Your task to perform on an android device: Add "panasonic triple a" to the cart on ebay Image 0: 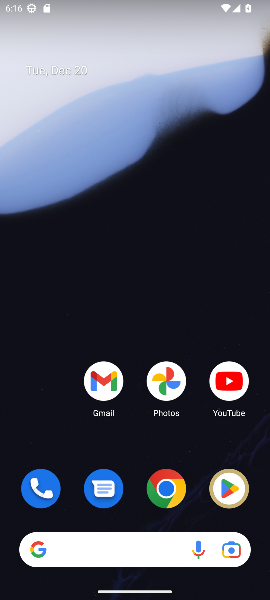
Step 0: press home button
Your task to perform on an android device: Add "panasonic triple a" to the cart on ebay Image 1: 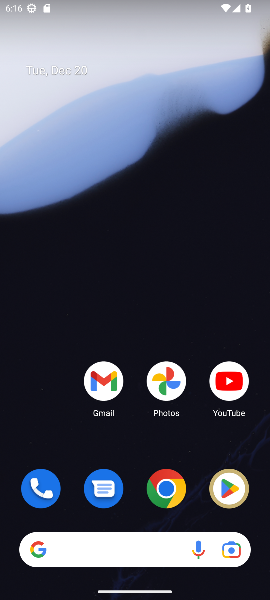
Step 1: click (60, 548)
Your task to perform on an android device: Add "panasonic triple a" to the cart on ebay Image 2: 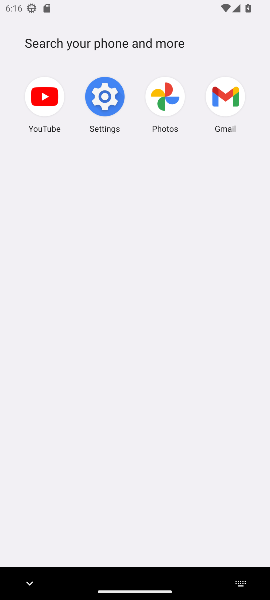
Step 2: press home button
Your task to perform on an android device: Add "panasonic triple a" to the cart on ebay Image 3: 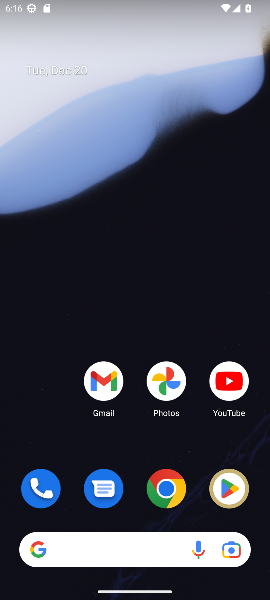
Step 3: drag from (65, 445) to (48, 56)
Your task to perform on an android device: Add "panasonic triple a" to the cart on ebay Image 4: 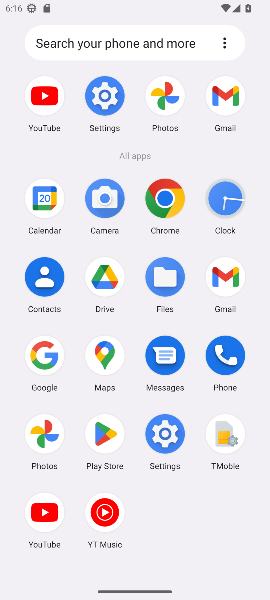
Step 4: click (34, 354)
Your task to perform on an android device: Add "panasonic triple a" to the cart on ebay Image 5: 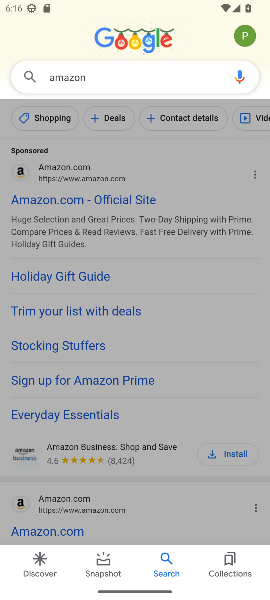
Step 5: click (149, 72)
Your task to perform on an android device: Add "panasonic triple a" to the cart on ebay Image 6: 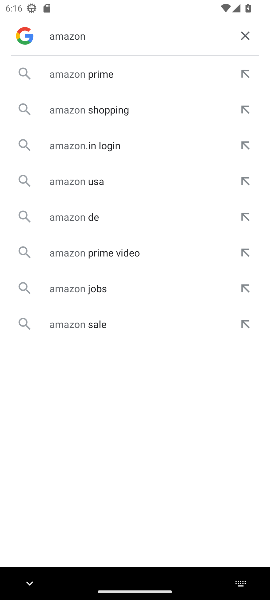
Step 6: click (248, 32)
Your task to perform on an android device: Add "panasonic triple a" to the cart on ebay Image 7: 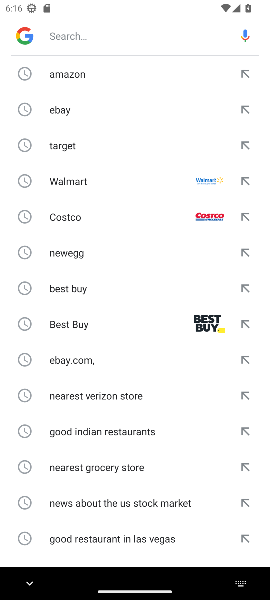
Step 7: type "ebay"
Your task to perform on an android device: Add "panasonic triple a" to the cart on ebay Image 8: 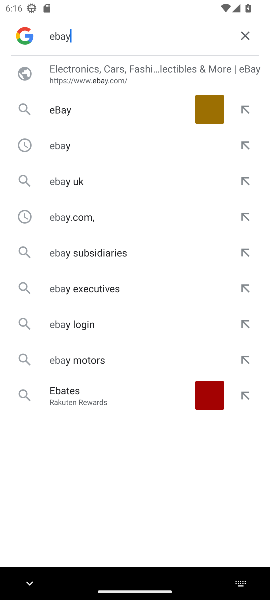
Step 8: press enter
Your task to perform on an android device: Add "panasonic triple a" to the cart on ebay Image 9: 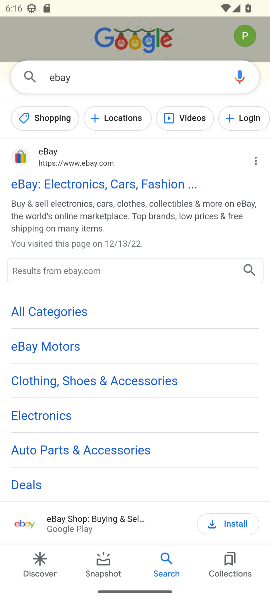
Step 9: click (131, 187)
Your task to perform on an android device: Add "panasonic triple a" to the cart on ebay Image 10: 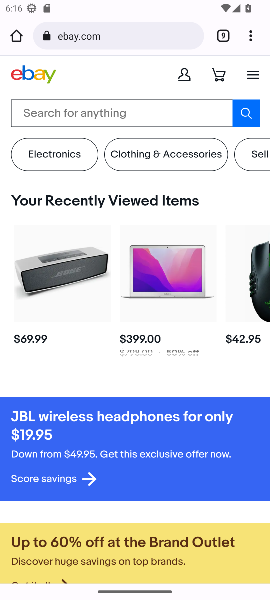
Step 10: click (118, 108)
Your task to perform on an android device: Add "panasonic triple a" to the cart on ebay Image 11: 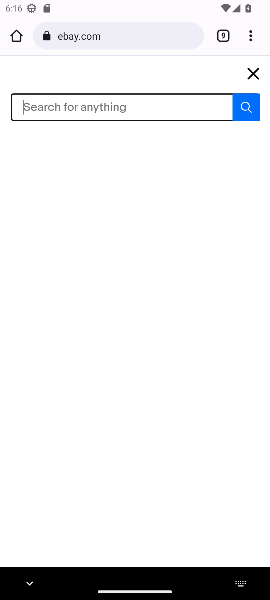
Step 11: type "panasonic triple a"
Your task to perform on an android device: Add "panasonic triple a" to the cart on ebay Image 12: 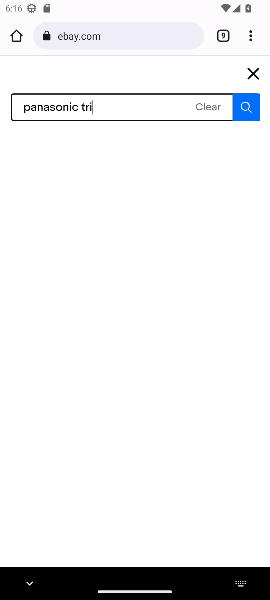
Step 12: press enter
Your task to perform on an android device: Add "panasonic triple a" to the cart on ebay Image 13: 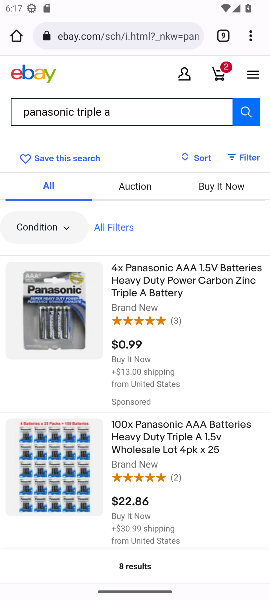
Step 13: click (151, 287)
Your task to perform on an android device: Add "panasonic triple a" to the cart on ebay Image 14: 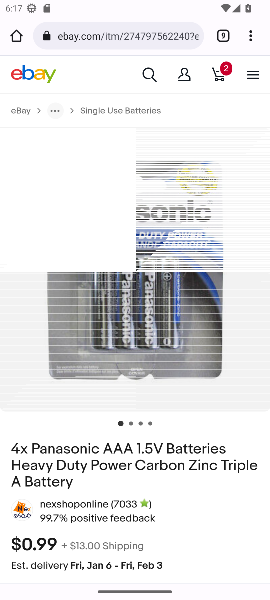
Step 14: drag from (160, 516) to (142, 177)
Your task to perform on an android device: Add "panasonic triple a" to the cart on ebay Image 15: 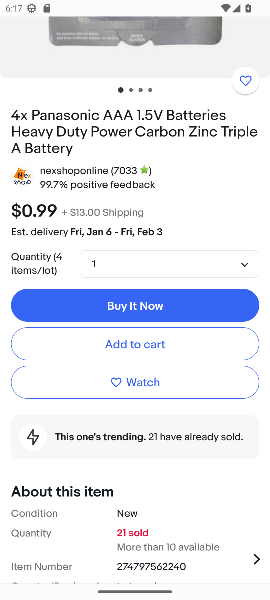
Step 15: click (120, 340)
Your task to perform on an android device: Add "panasonic triple a" to the cart on ebay Image 16: 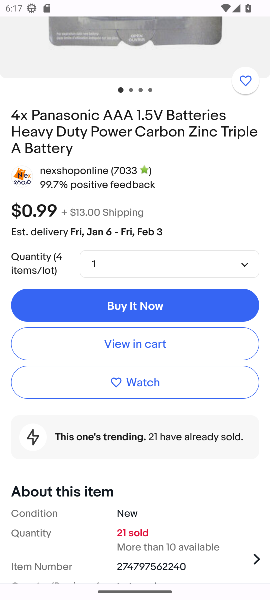
Step 16: task complete